Your task to perform on an android device: Turn on the flashlight Image 0: 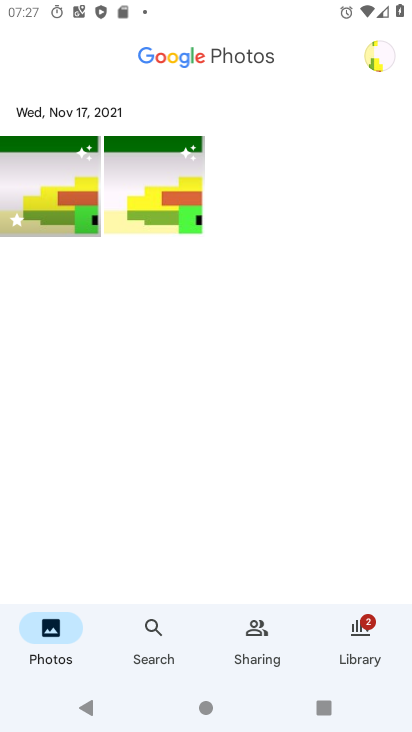
Step 0: drag from (284, 10) to (252, 723)
Your task to perform on an android device: Turn on the flashlight Image 1: 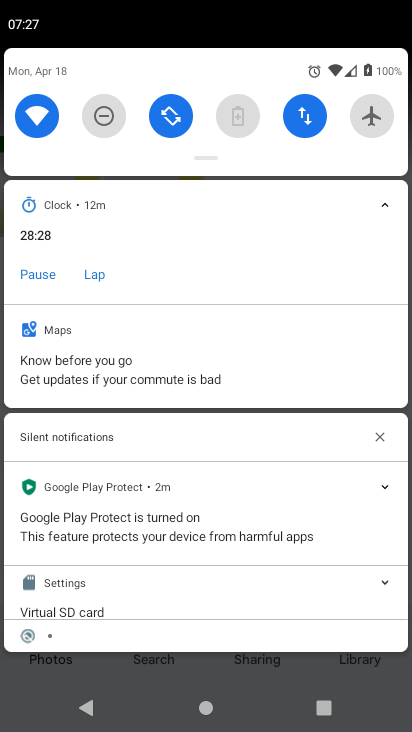
Step 1: task complete